Your task to perform on an android device: Open battery settings Image 0: 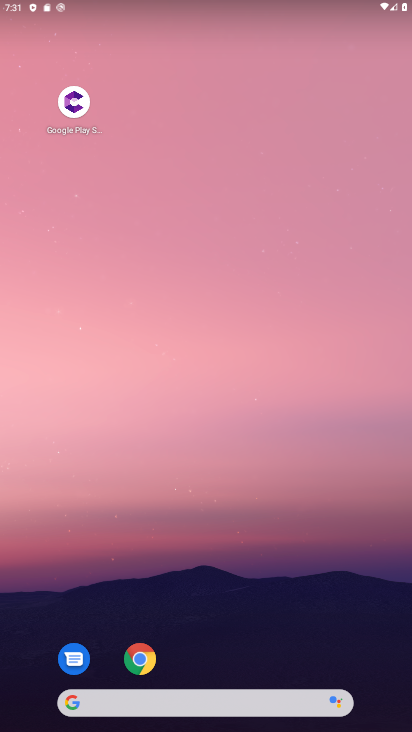
Step 0: drag from (167, 671) to (209, 173)
Your task to perform on an android device: Open battery settings Image 1: 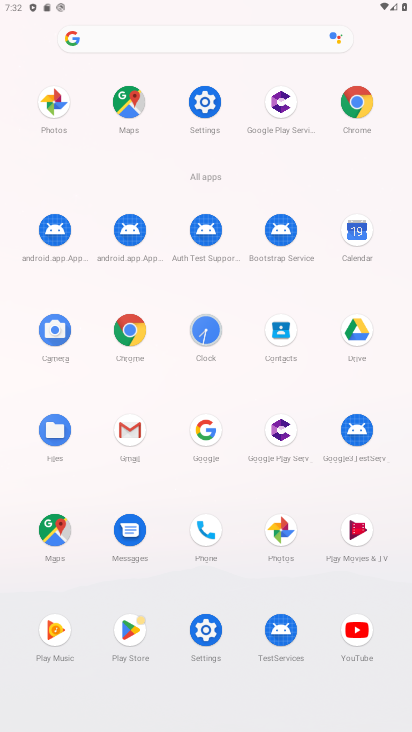
Step 1: click (209, 107)
Your task to perform on an android device: Open battery settings Image 2: 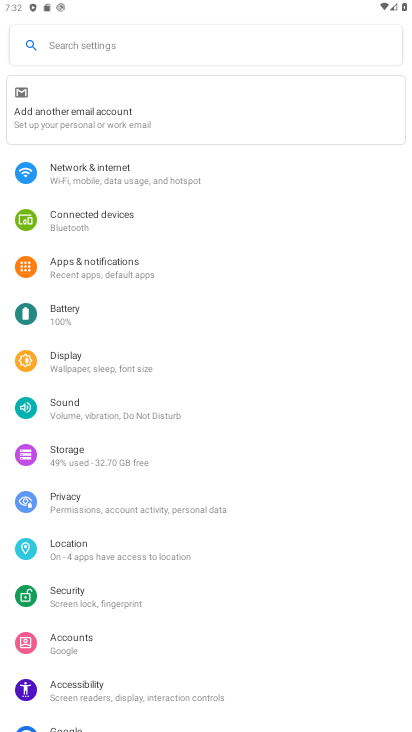
Step 2: click (69, 305)
Your task to perform on an android device: Open battery settings Image 3: 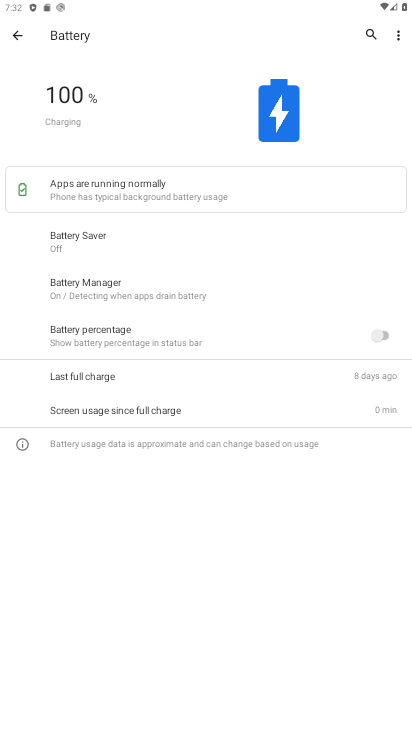
Step 3: task complete